Your task to perform on an android device: see creations saved in the google photos Image 0: 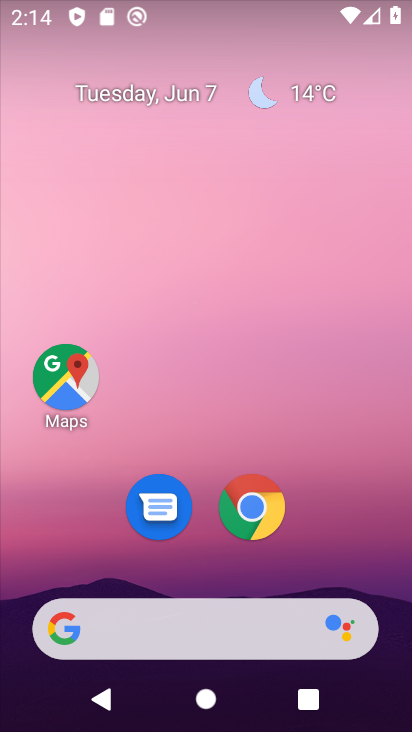
Step 0: drag from (348, 532) to (344, 94)
Your task to perform on an android device: see creations saved in the google photos Image 1: 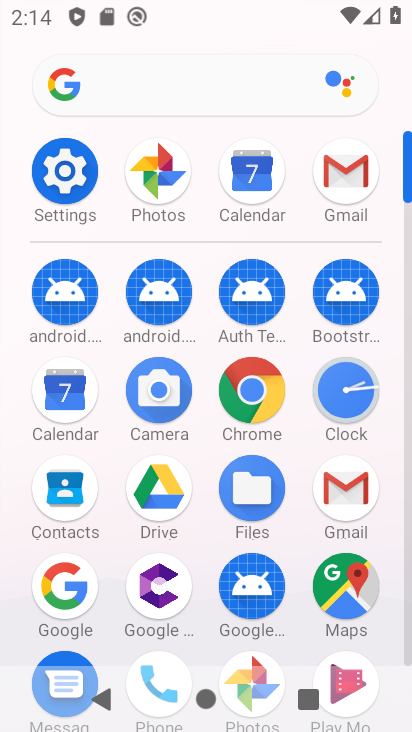
Step 1: click (248, 657)
Your task to perform on an android device: see creations saved in the google photos Image 2: 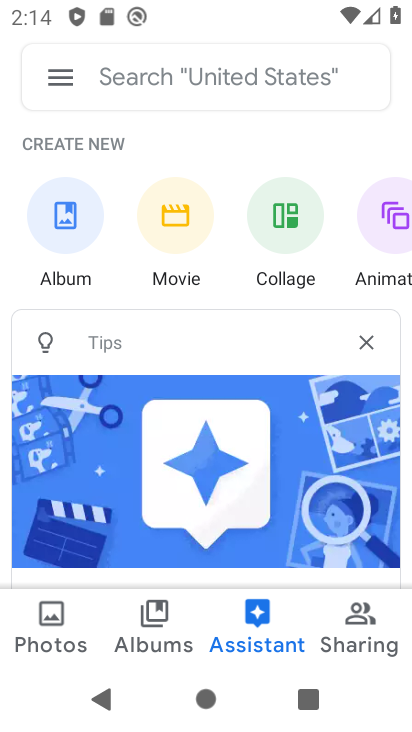
Step 2: click (353, 630)
Your task to perform on an android device: see creations saved in the google photos Image 3: 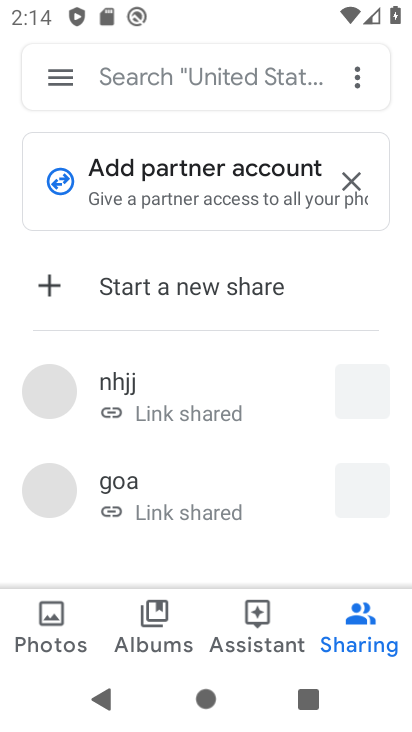
Step 3: click (161, 631)
Your task to perform on an android device: see creations saved in the google photos Image 4: 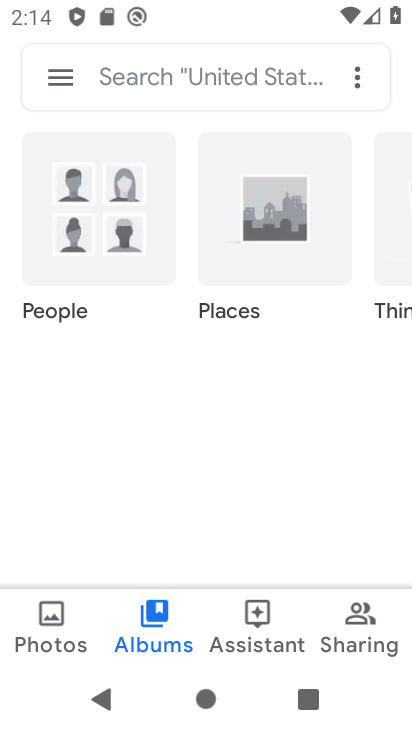
Step 4: click (258, 620)
Your task to perform on an android device: see creations saved in the google photos Image 5: 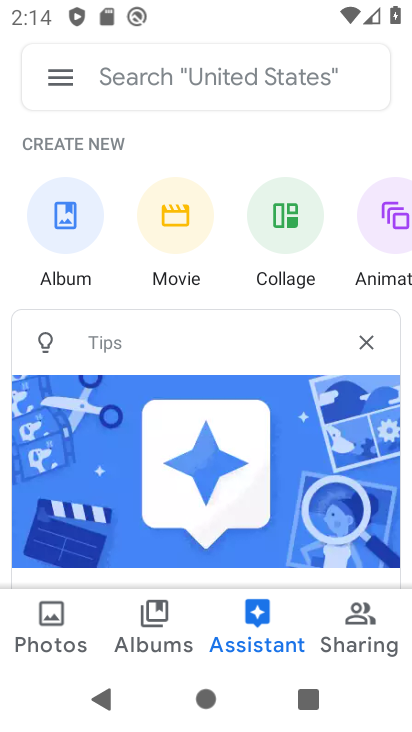
Step 5: task complete